Your task to perform on an android device: change the clock style Image 0: 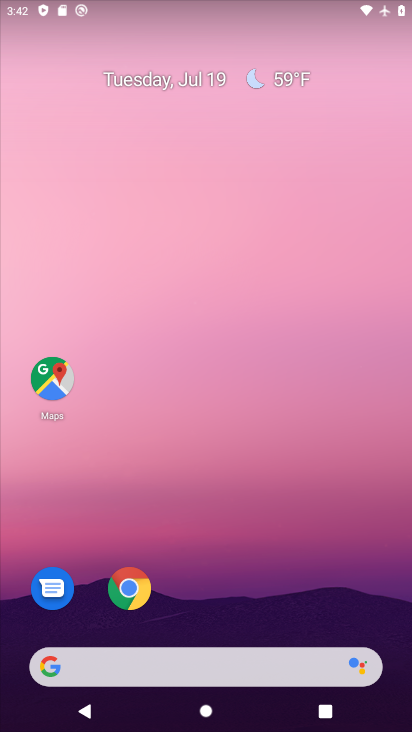
Step 0: press home button
Your task to perform on an android device: change the clock style Image 1: 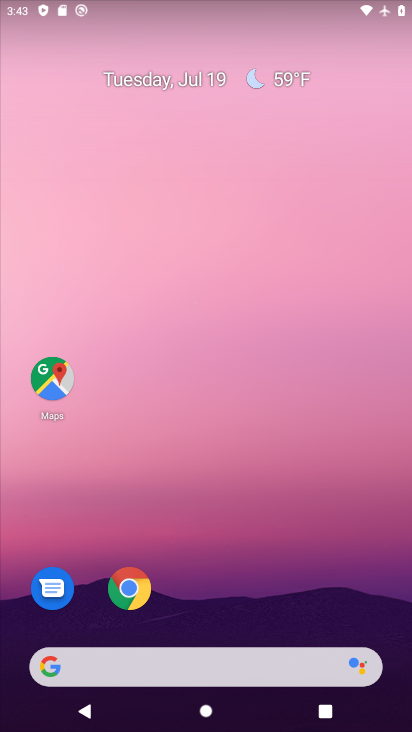
Step 1: drag from (231, 625) to (322, 146)
Your task to perform on an android device: change the clock style Image 2: 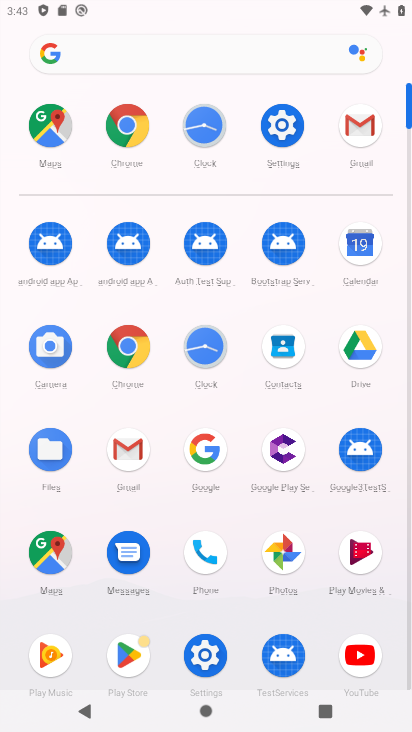
Step 2: click (213, 139)
Your task to perform on an android device: change the clock style Image 3: 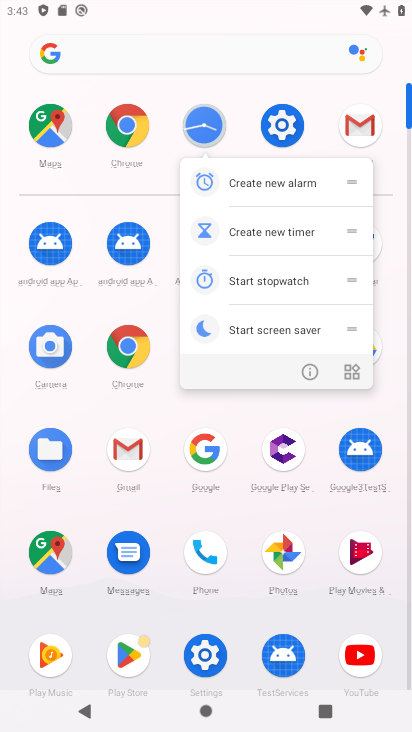
Step 3: click (197, 124)
Your task to perform on an android device: change the clock style Image 4: 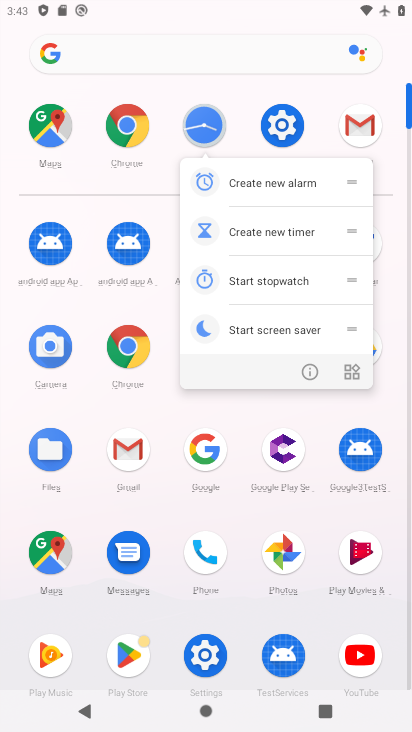
Step 4: click (193, 134)
Your task to perform on an android device: change the clock style Image 5: 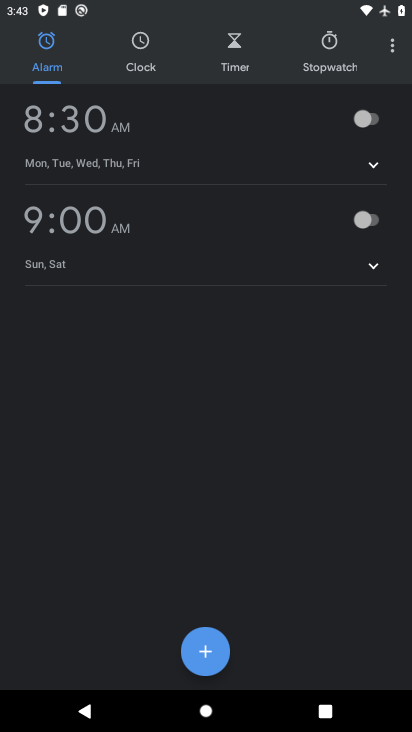
Step 5: click (387, 54)
Your task to perform on an android device: change the clock style Image 6: 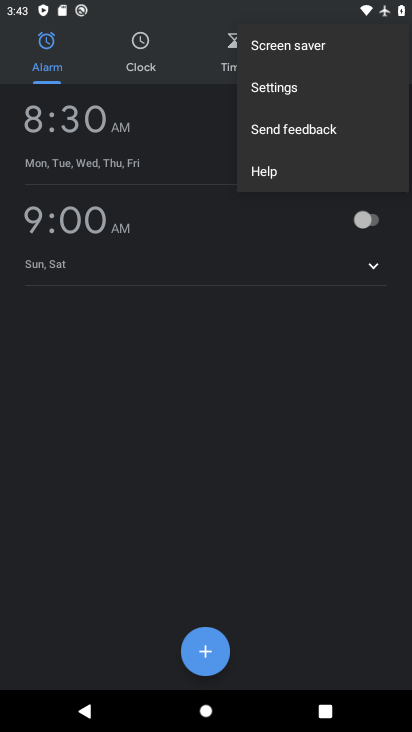
Step 6: click (275, 91)
Your task to perform on an android device: change the clock style Image 7: 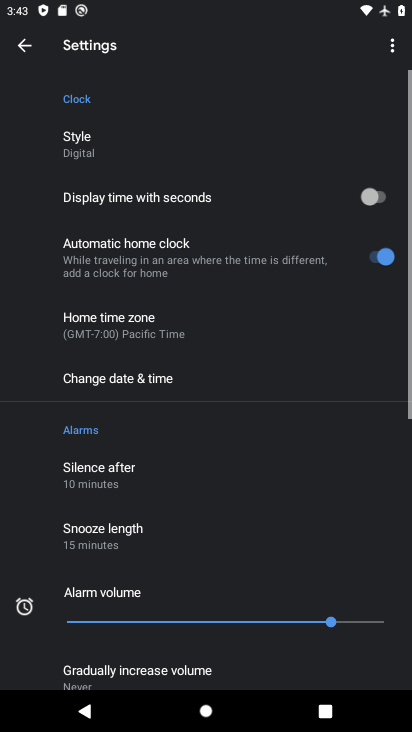
Step 7: click (76, 160)
Your task to perform on an android device: change the clock style Image 8: 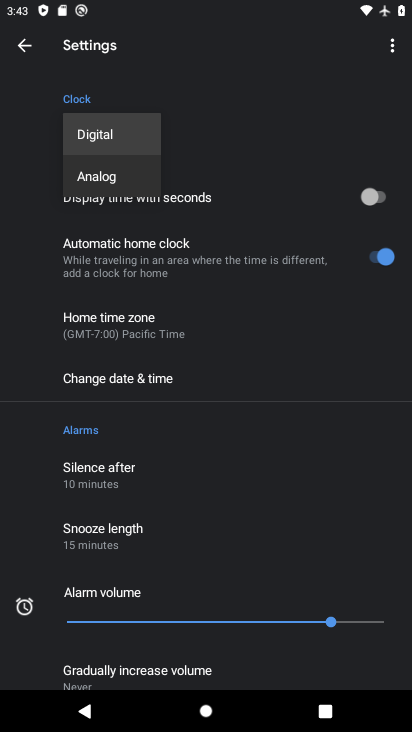
Step 8: click (96, 177)
Your task to perform on an android device: change the clock style Image 9: 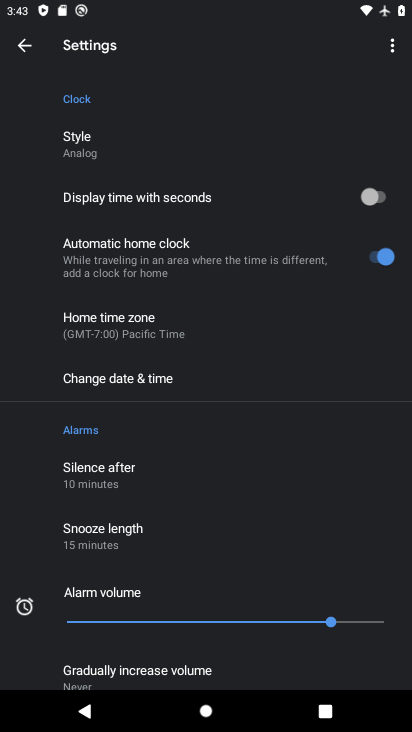
Step 9: task complete